Your task to perform on an android device: toggle improve location accuracy Image 0: 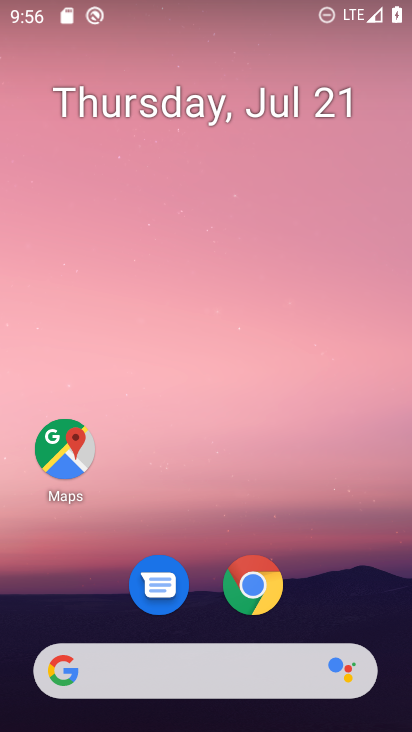
Step 0: drag from (320, 565) to (342, 69)
Your task to perform on an android device: toggle improve location accuracy Image 1: 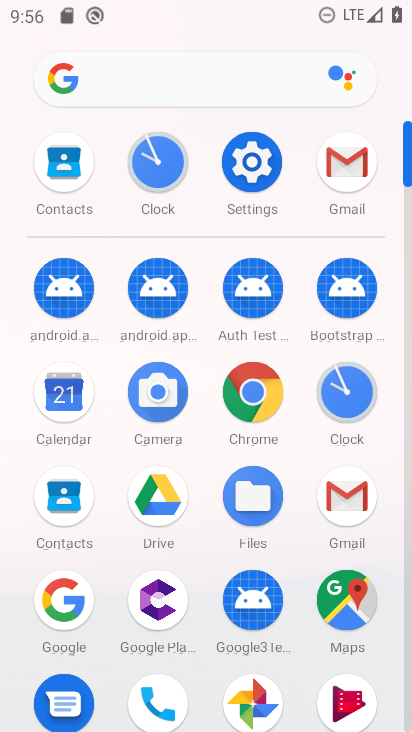
Step 1: click (253, 160)
Your task to perform on an android device: toggle improve location accuracy Image 2: 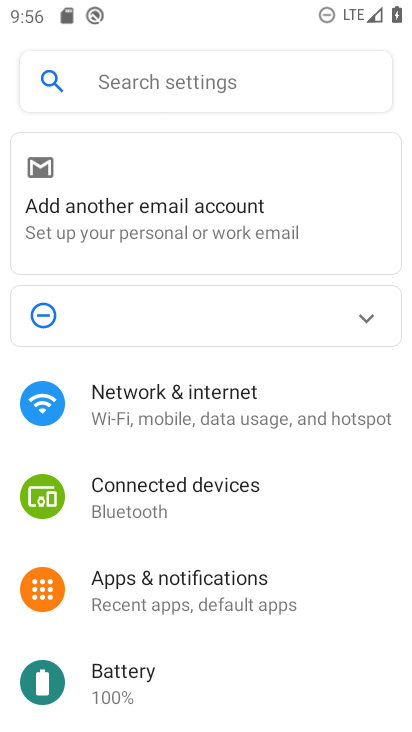
Step 2: drag from (226, 658) to (287, 82)
Your task to perform on an android device: toggle improve location accuracy Image 3: 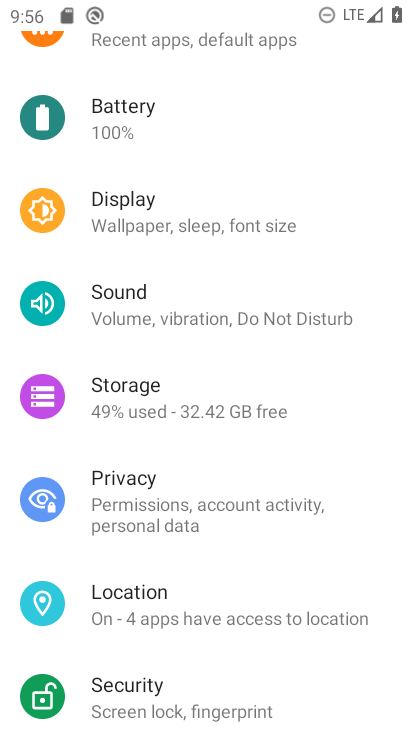
Step 3: click (193, 608)
Your task to perform on an android device: toggle improve location accuracy Image 4: 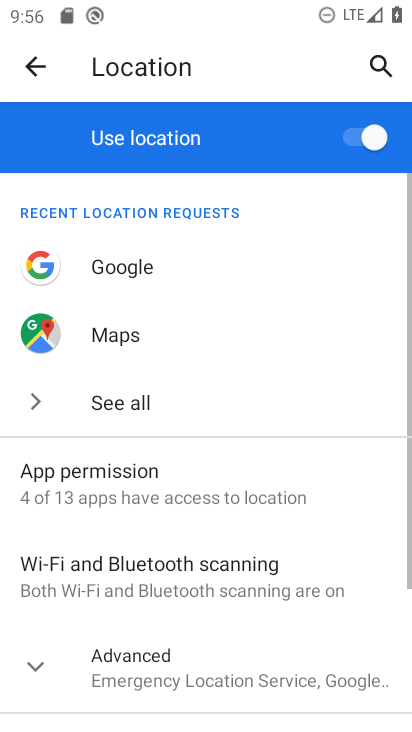
Step 4: click (37, 663)
Your task to perform on an android device: toggle improve location accuracy Image 5: 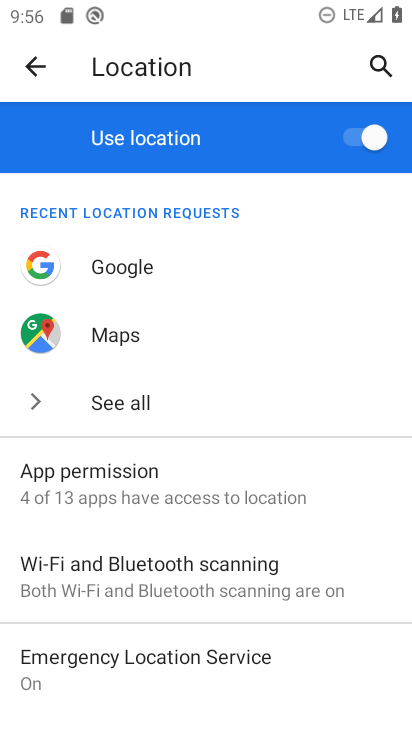
Step 5: drag from (241, 620) to (261, 250)
Your task to perform on an android device: toggle improve location accuracy Image 6: 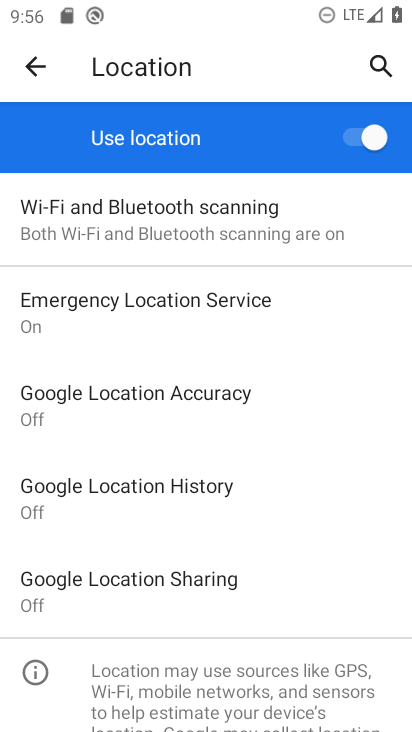
Step 6: click (212, 406)
Your task to perform on an android device: toggle improve location accuracy Image 7: 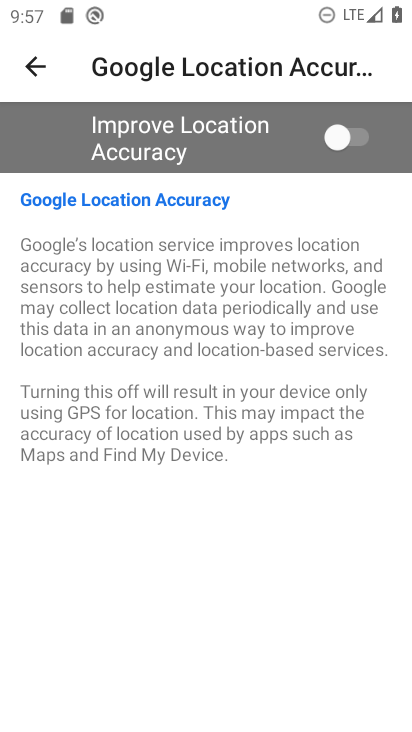
Step 7: click (344, 130)
Your task to perform on an android device: toggle improve location accuracy Image 8: 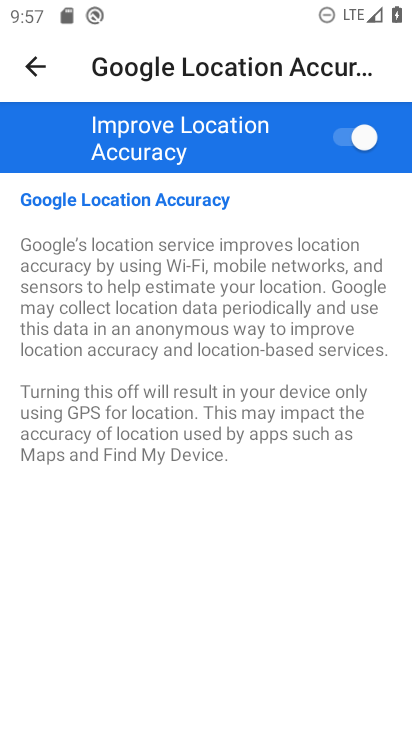
Step 8: task complete